Your task to perform on an android device: Open calendar and show me the fourth week of next month Image 0: 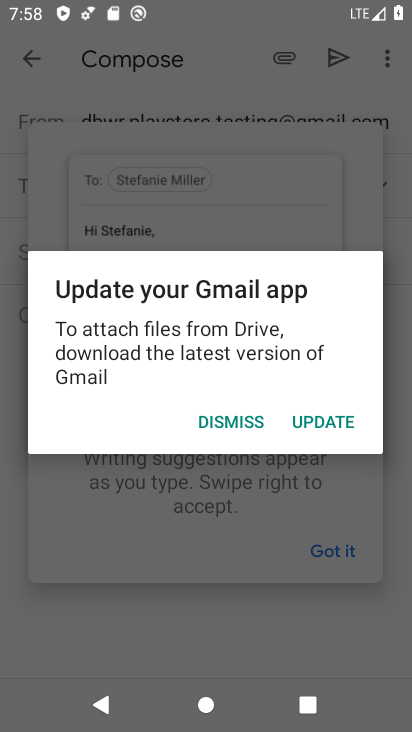
Step 0: click (219, 407)
Your task to perform on an android device: Open calendar and show me the fourth week of next month Image 1: 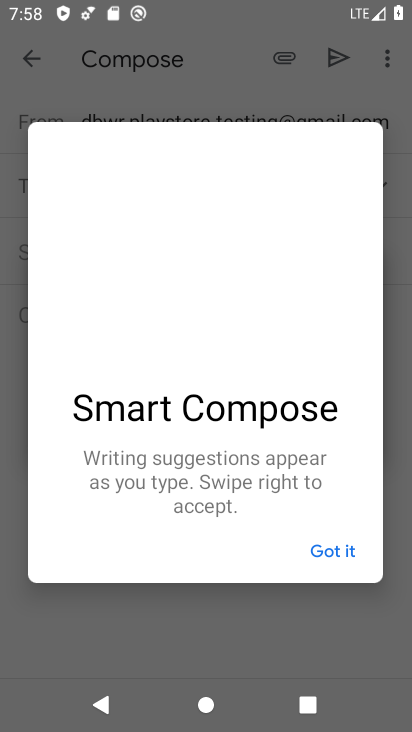
Step 1: click (320, 536)
Your task to perform on an android device: Open calendar and show me the fourth week of next month Image 2: 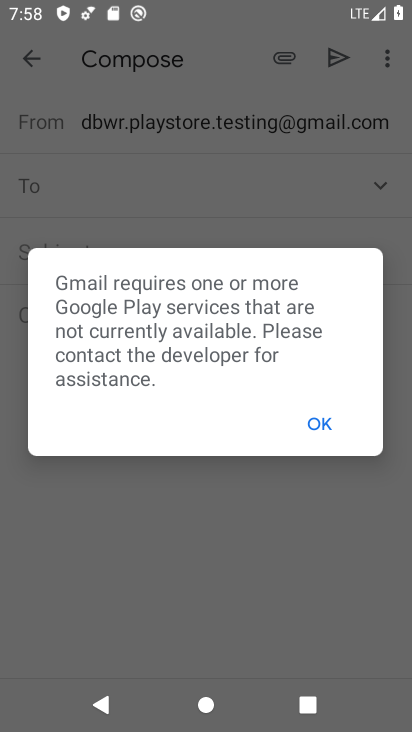
Step 2: click (310, 421)
Your task to perform on an android device: Open calendar and show me the fourth week of next month Image 3: 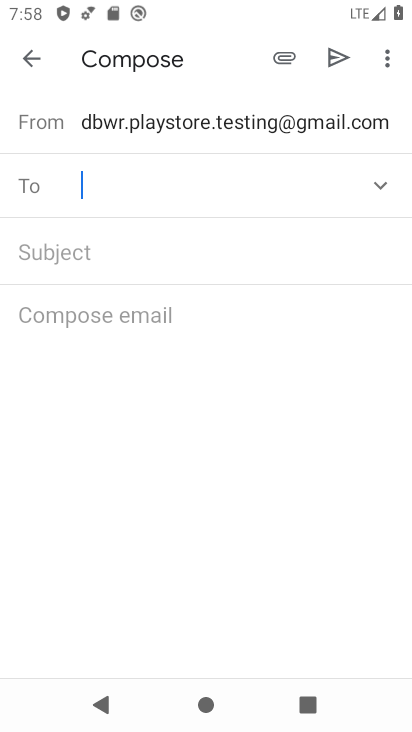
Step 3: press home button
Your task to perform on an android device: Open calendar and show me the fourth week of next month Image 4: 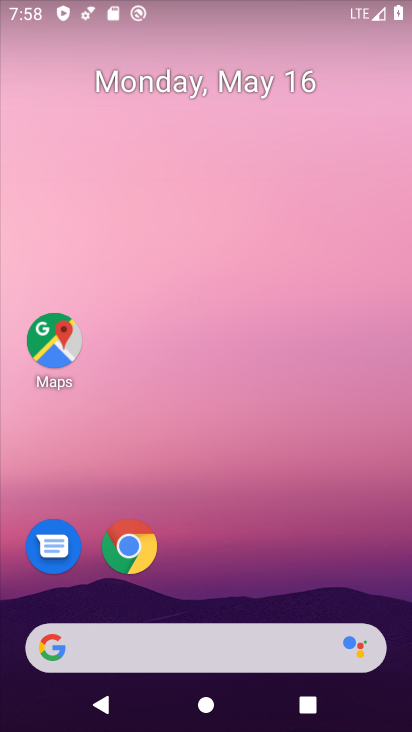
Step 4: drag from (247, 549) to (344, 103)
Your task to perform on an android device: Open calendar and show me the fourth week of next month Image 5: 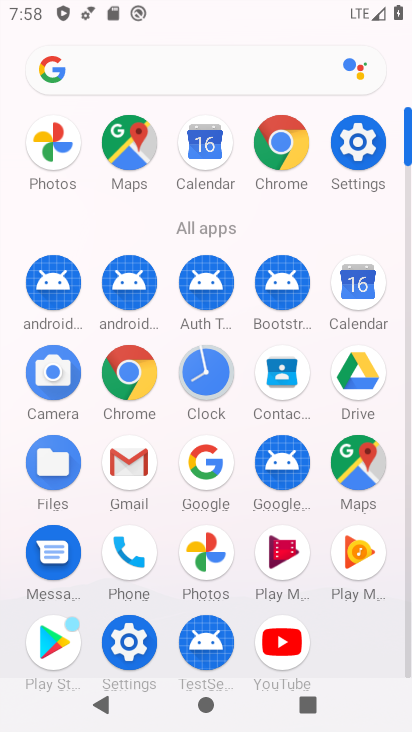
Step 5: click (220, 153)
Your task to perform on an android device: Open calendar and show me the fourth week of next month Image 6: 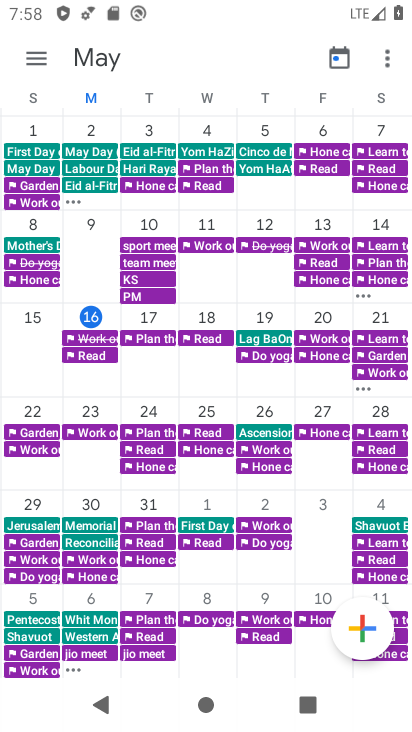
Step 6: click (115, 105)
Your task to perform on an android device: Open calendar and show me the fourth week of next month Image 7: 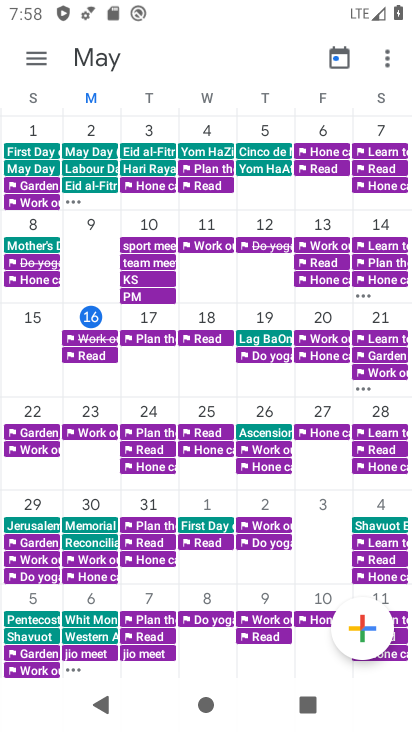
Step 7: click (40, 59)
Your task to perform on an android device: Open calendar and show me the fourth week of next month Image 8: 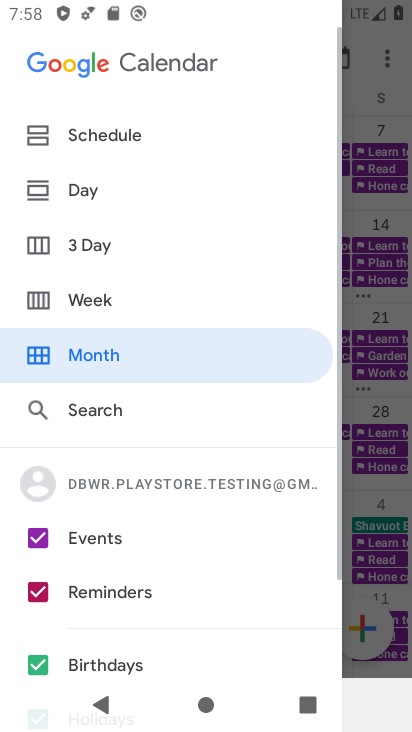
Step 8: click (40, 122)
Your task to perform on an android device: Open calendar and show me the fourth week of next month Image 9: 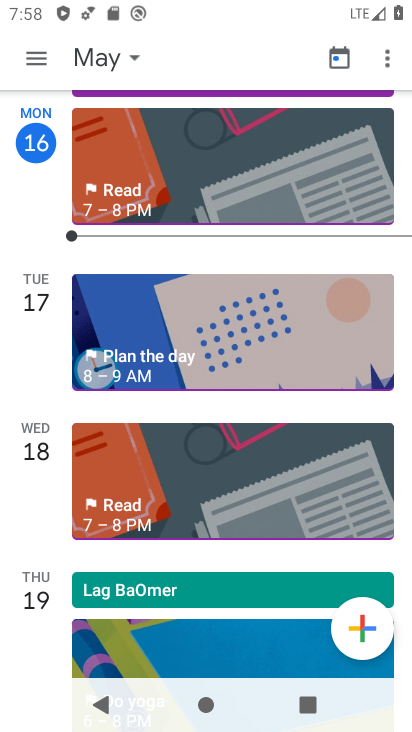
Step 9: click (121, 65)
Your task to perform on an android device: Open calendar and show me the fourth week of next month Image 10: 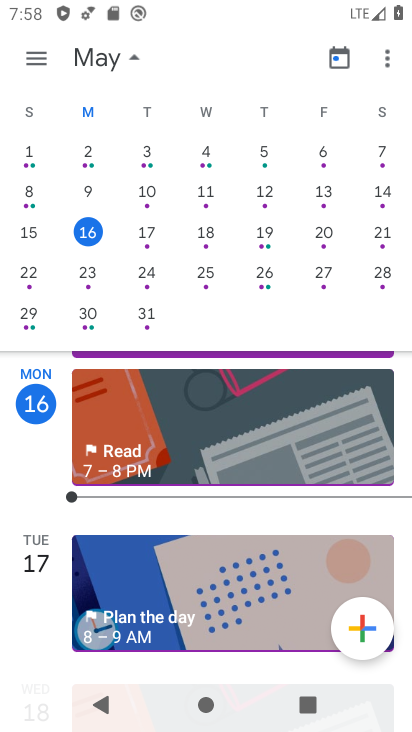
Step 10: drag from (378, 269) to (100, 313)
Your task to perform on an android device: Open calendar and show me the fourth week of next month Image 11: 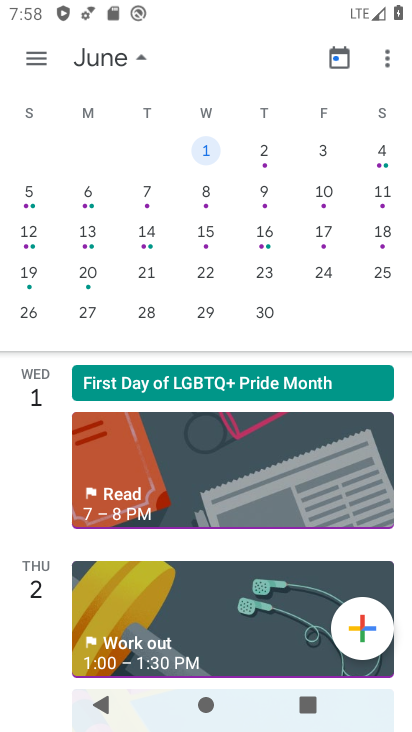
Step 11: click (210, 270)
Your task to perform on an android device: Open calendar and show me the fourth week of next month Image 12: 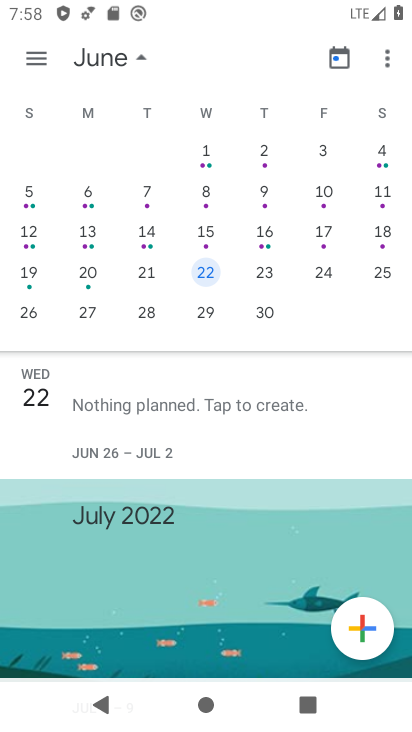
Step 12: task complete